Your task to perform on an android device: Play the last video I watched on Youtube Image 0: 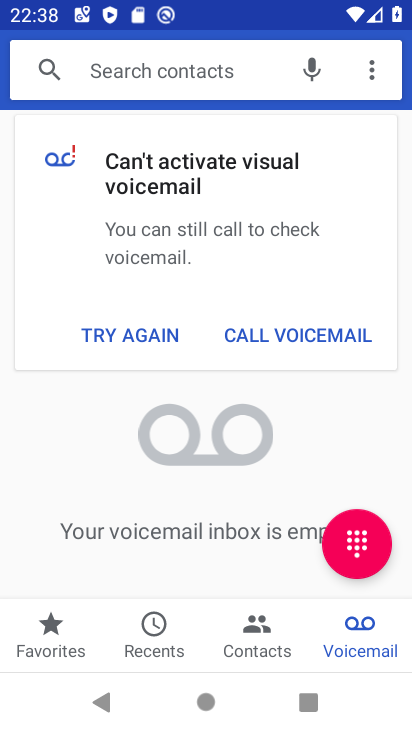
Step 0: press home button
Your task to perform on an android device: Play the last video I watched on Youtube Image 1: 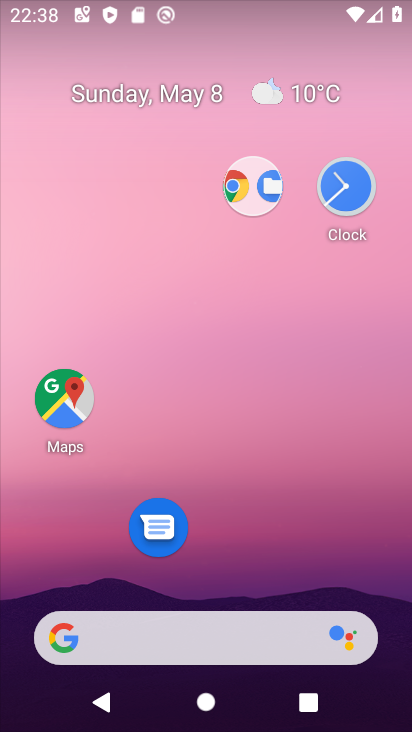
Step 1: drag from (267, 549) to (299, 91)
Your task to perform on an android device: Play the last video I watched on Youtube Image 2: 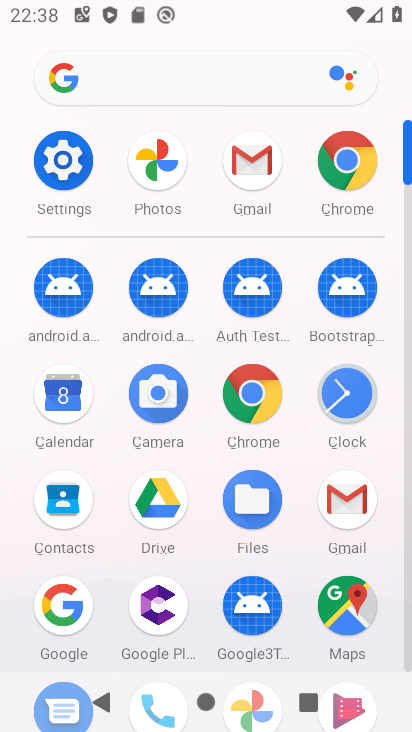
Step 2: drag from (302, 631) to (273, 265)
Your task to perform on an android device: Play the last video I watched on Youtube Image 3: 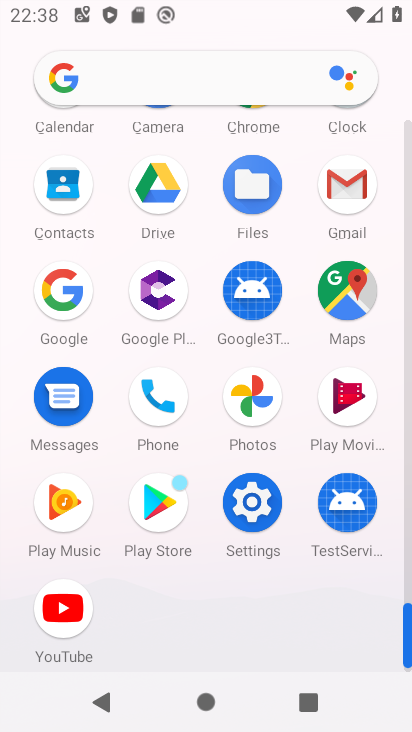
Step 3: click (70, 600)
Your task to perform on an android device: Play the last video I watched on Youtube Image 4: 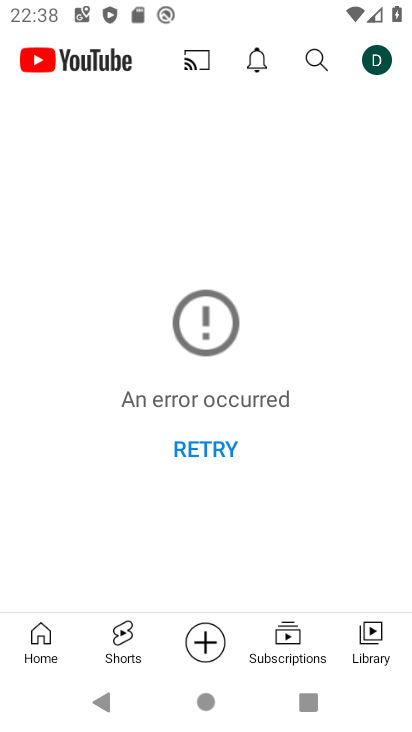
Step 4: click (369, 626)
Your task to perform on an android device: Play the last video I watched on Youtube Image 5: 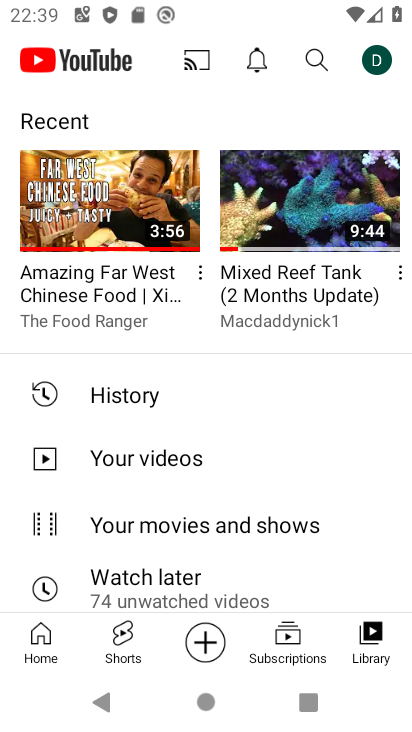
Step 5: click (152, 200)
Your task to perform on an android device: Play the last video I watched on Youtube Image 6: 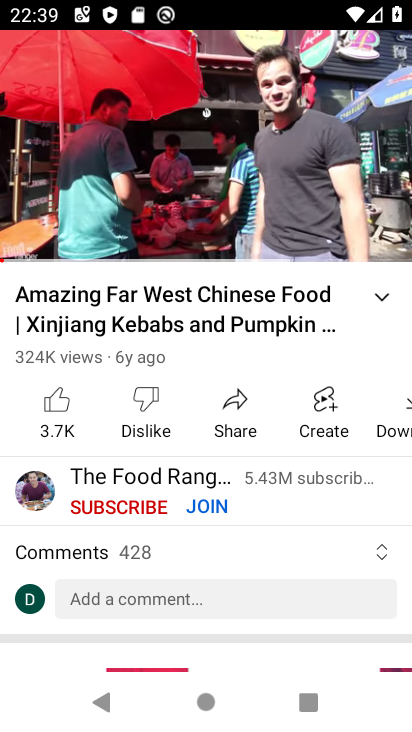
Step 6: task complete